Your task to perform on an android device: toggle javascript in the chrome app Image 0: 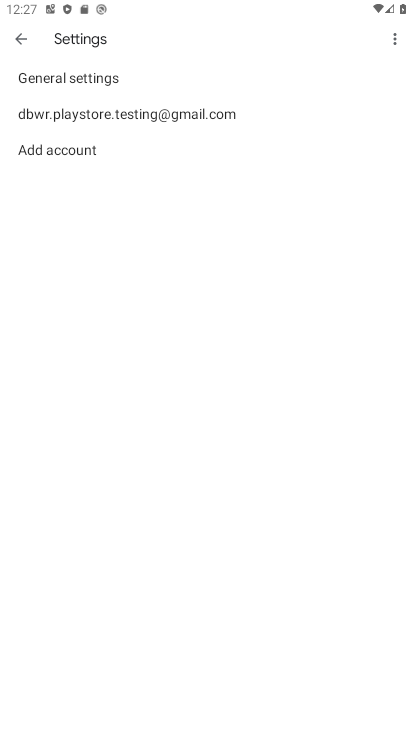
Step 0: press home button
Your task to perform on an android device: toggle javascript in the chrome app Image 1: 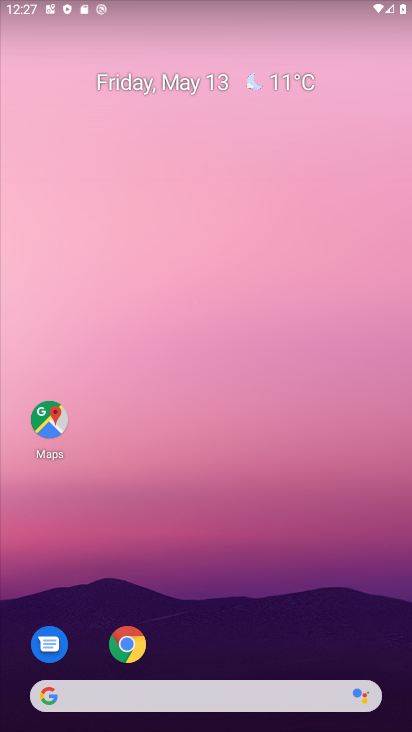
Step 1: drag from (206, 718) to (216, 268)
Your task to perform on an android device: toggle javascript in the chrome app Image 2: 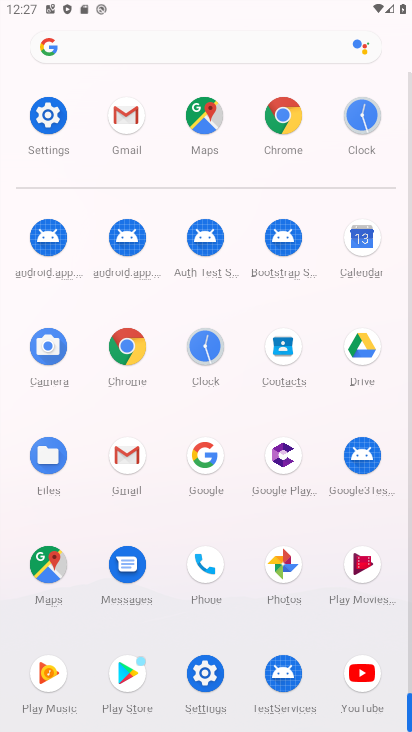
Step 2: click (127, 349)
Your task to perform on an android device: toggle javascript in the chrome app Image 3: 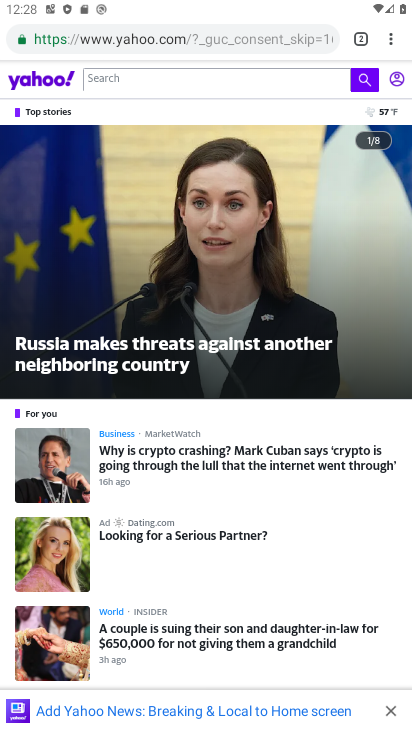
Step 3: click (393, 46)
Your task to perform on an android device: toggle javascript in the chrome app Image 4: 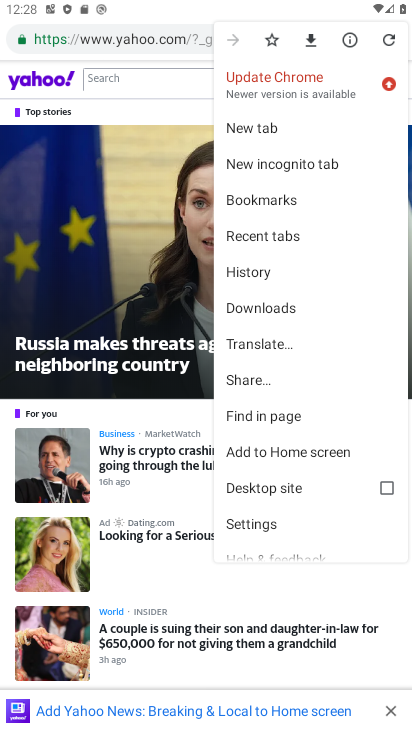
Step 4: click (251, 522)
Your task to perform on an android device: toggle javascript in the chrome app Image 5: 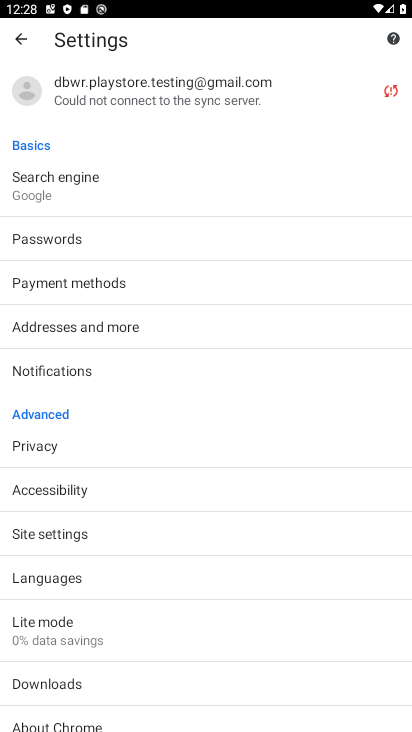
Step 5: click (70, 535)
Your task to perform on an android device: toggle javascript in the chrome app Image 6: 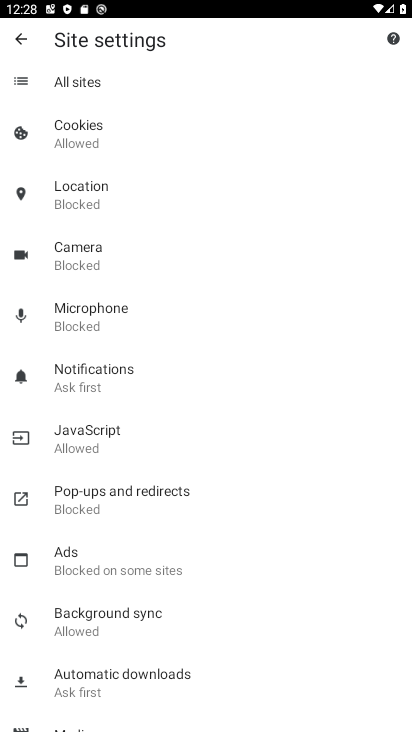
Step 6: click (73, 436)
Your task to perform on an android device: toggle javascript in the chrome app Image 7: 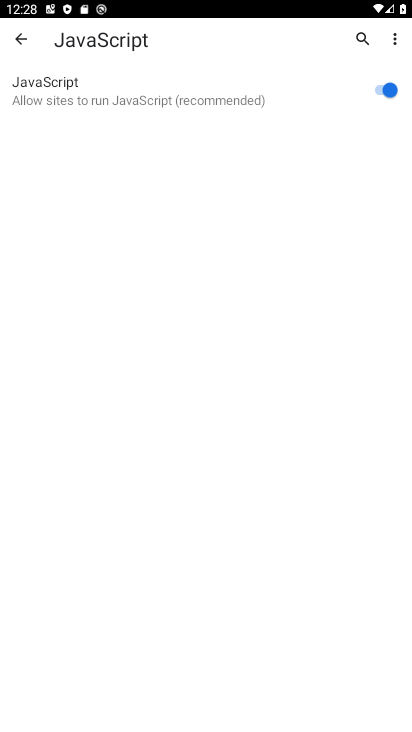
Step 7: click (380, 89)
Your task to perform on an android device: toggle javascript in the chrome app Image 8: 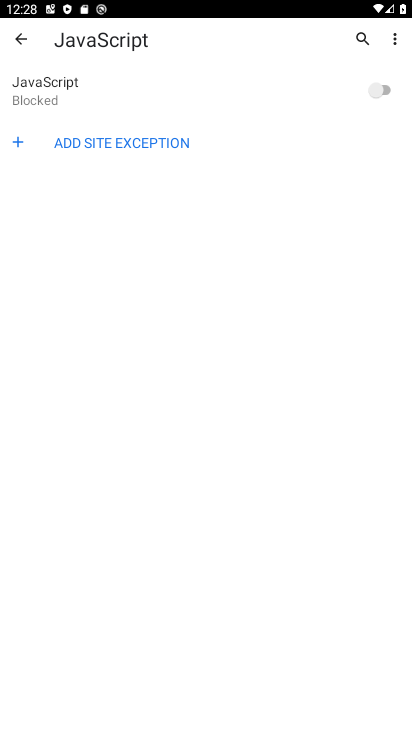
Step 8: task complete